Your task to perform on an android device: set the timer Image 0: 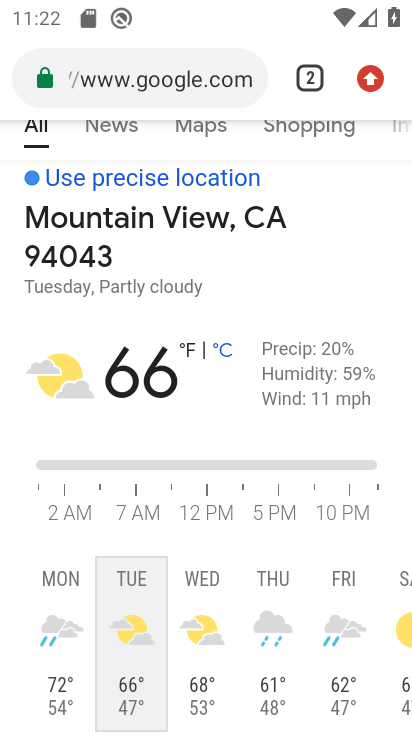
Step 0: press home button
Your task to perform on an android device: set the timer Image 1: 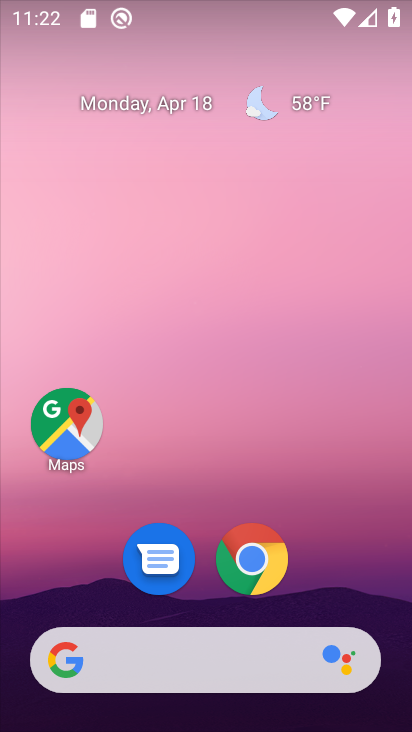
Step 1: drag from (330, 600) to (296, 224)
Your task to perform on an android device: set the timer Image 2: 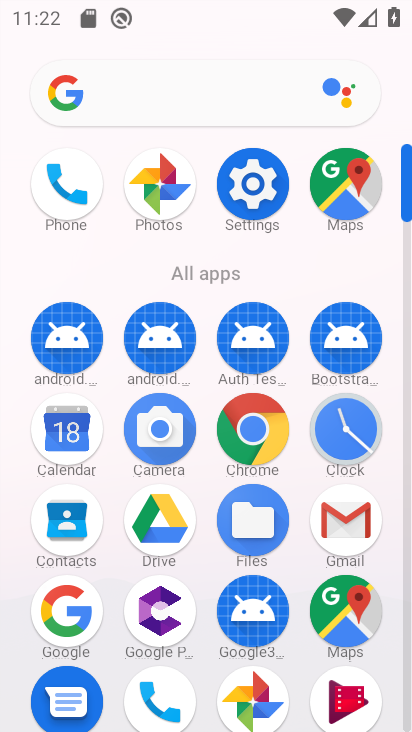
Step 2: click (362, 443)
Your task to perform on an android device: set the timer Image 3: 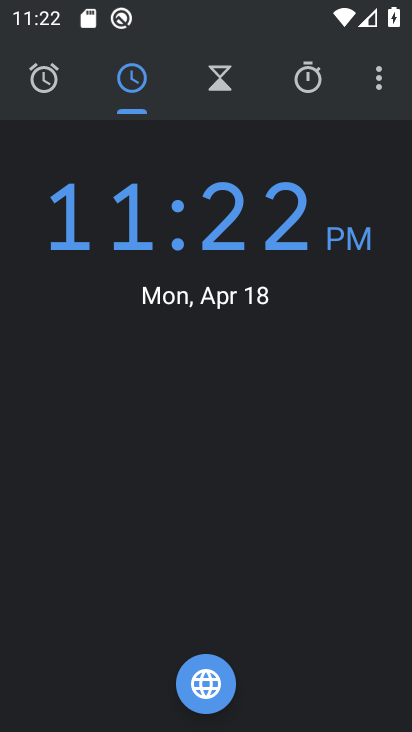
Step 3: click (234, 80)
Your task to perform on an android device: set the timer Image 4: 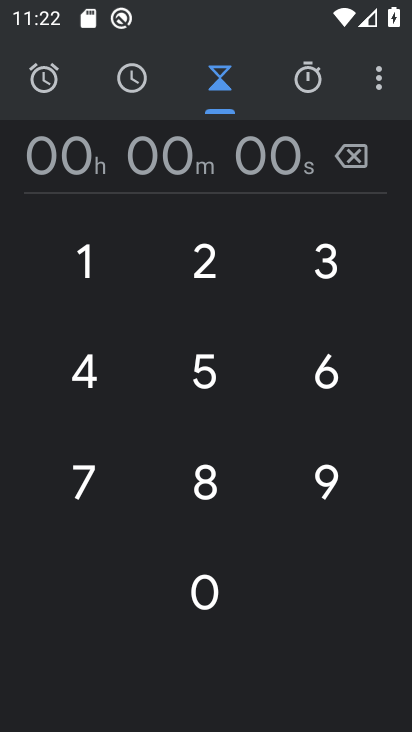
Step 4: click (200, 462)
Your task to perform on an android device: set the timer Image 5: 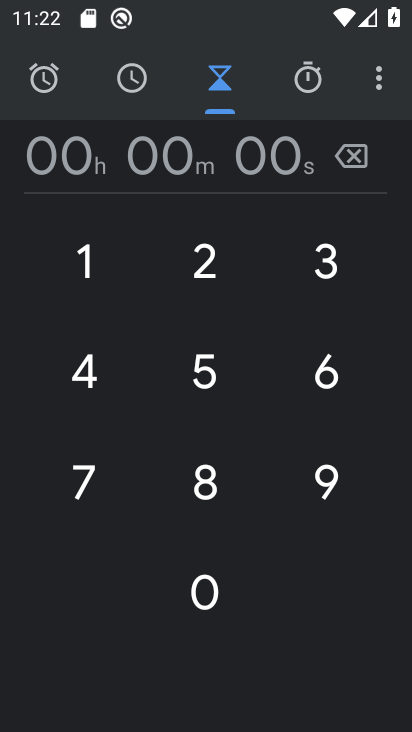
Step 5: click (199, 349)
Your task to perform on an android device: set the timer Image 6: 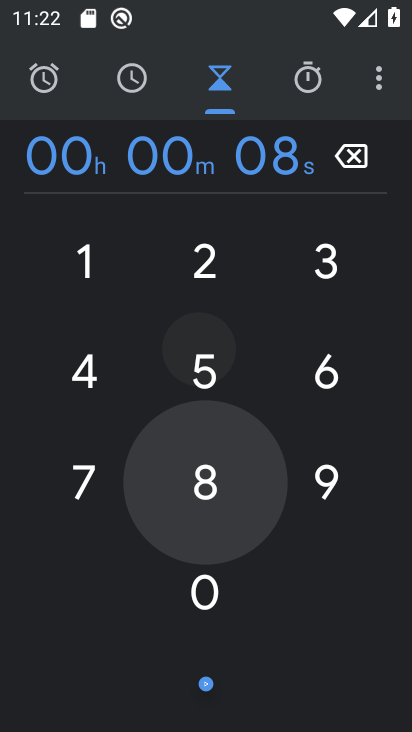
Step 6: click (124, 315)
Your task to perform on an android device: set the timer Image 7: 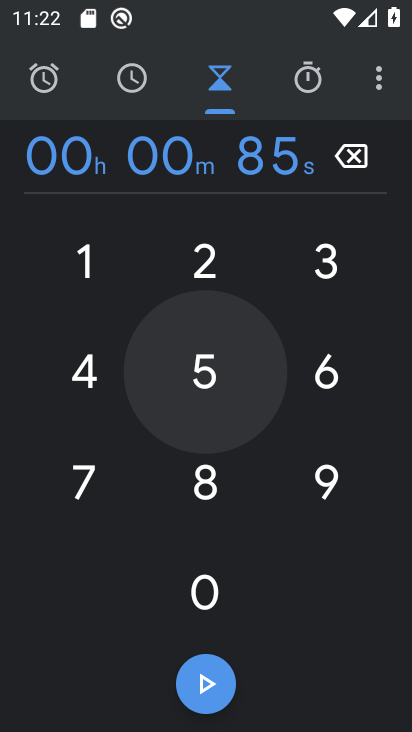
Step 7: click (98, 247)
Your task to perform on an android device: set the timer Image 8: 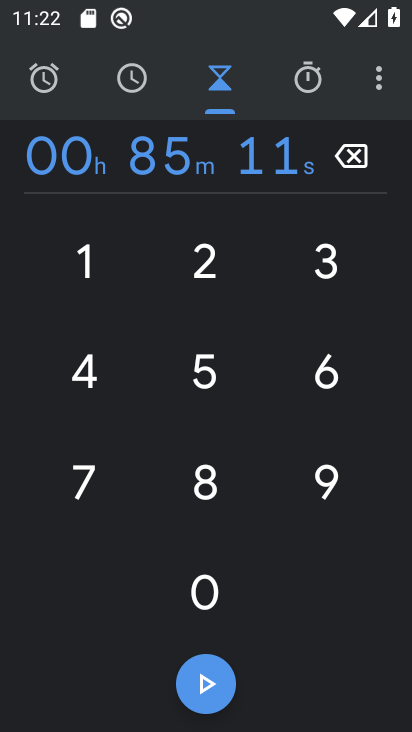
Step 8: click (216, 699)
Your task to perform on an android device: set the timer Image 9: 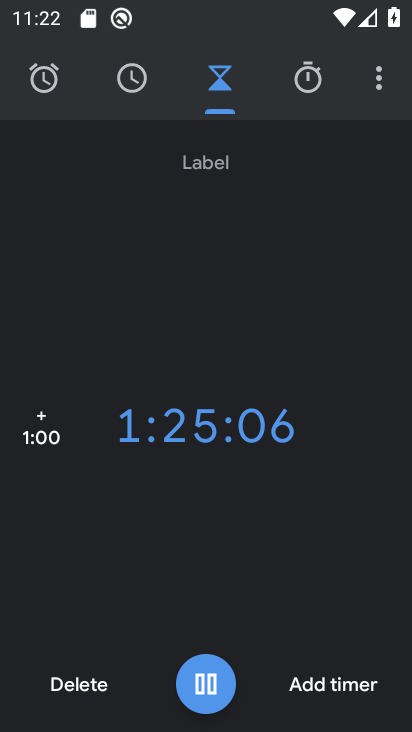
Step 9: click (334, 691)
Your task to perform on an android device: set the timer Image 10: 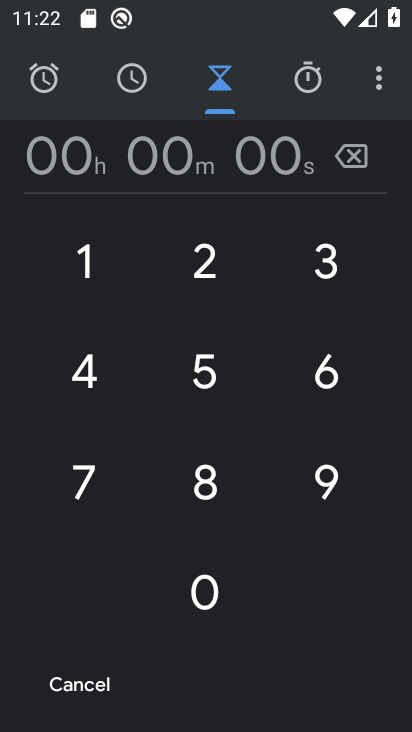
Step 10: task complete